Your task to perform on an android device: check google app version Image 0: 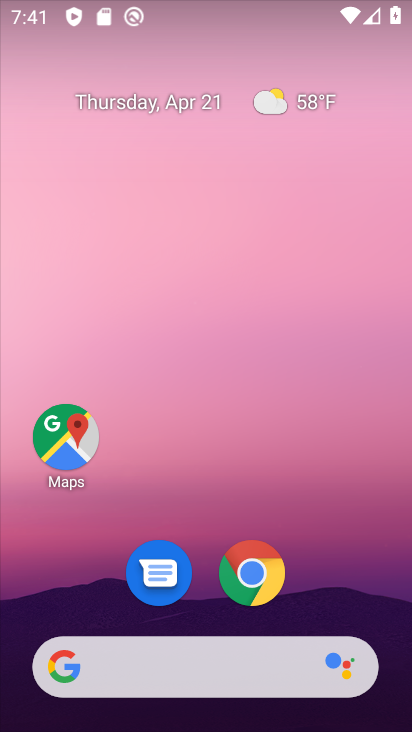
Step 0: drag from (175, 634) to (171, 225)
Your task to perform on an android device: check google app version Image 1: 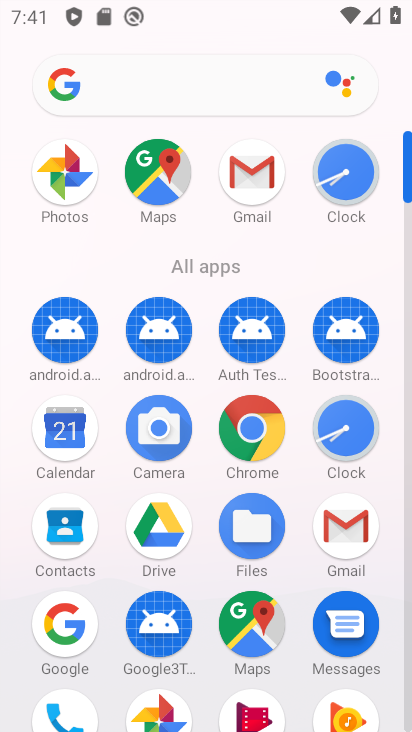
Step 1: click (51, 628)
Your task to perform on an android device: check google app version Image 2: 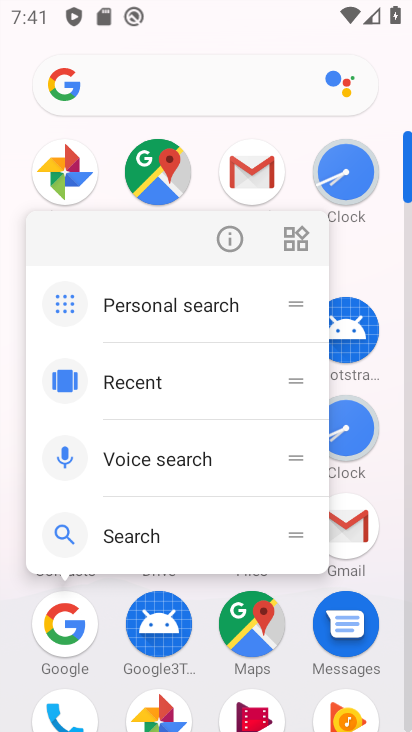
Step 2: click (230, 234)
Your task to perform on an android device: check google app version Image 3: 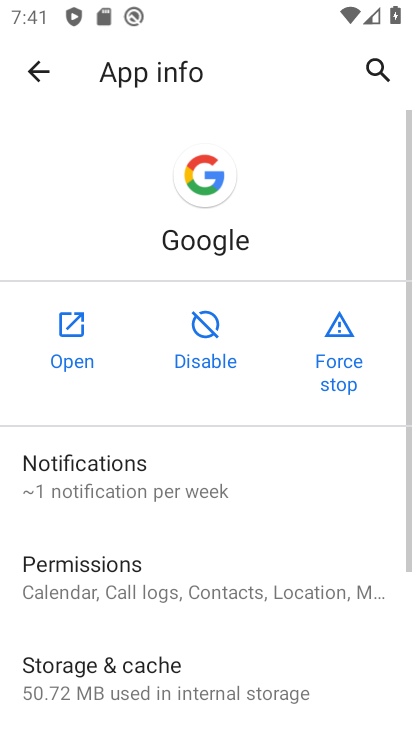
Step 3: drag from (160, 688) to (132, 367)
Your task to perform on an android device: check google app version Image 4: 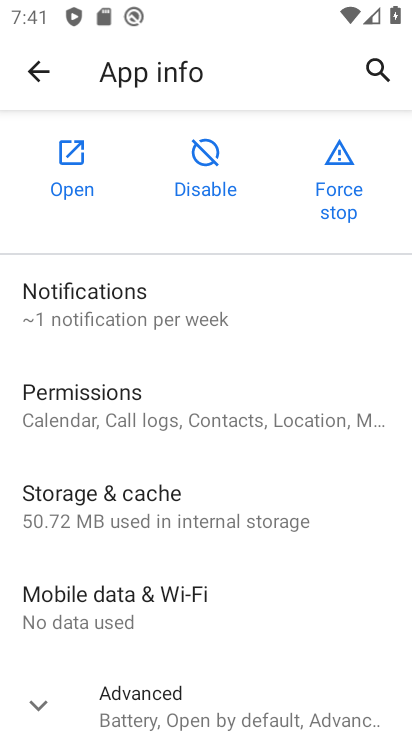
Step 4: drag from (156, 640) to (167, 428)
Your task to perform on an android device: check google app version Image 5: 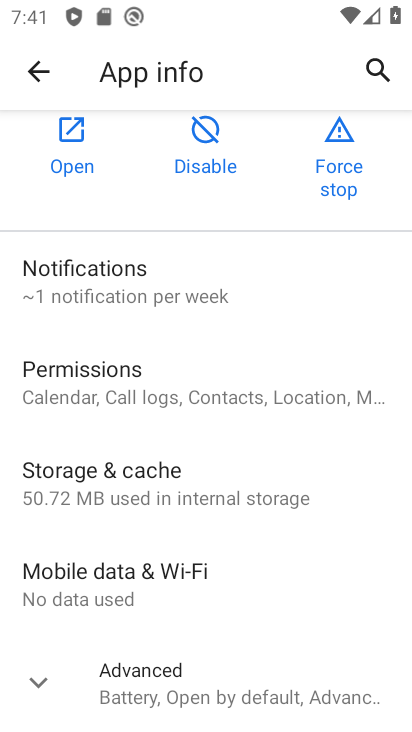
Step 5: click (187, 702)
Your task to perform on an android device: check google app version Image 6: 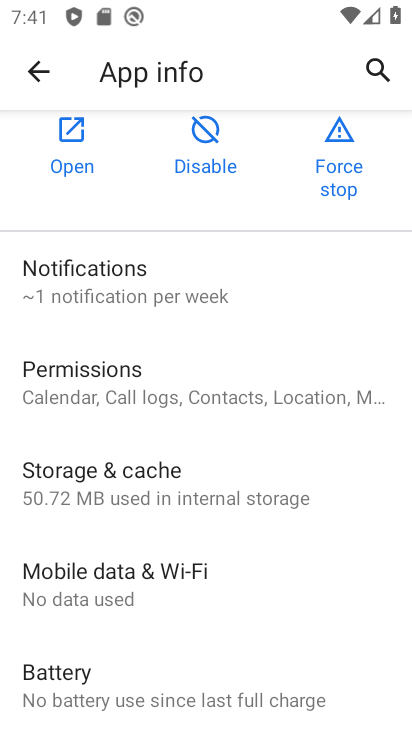
Step 6: task complete